Your task to perform on an android device: turn off picture-in-picture Image 0: 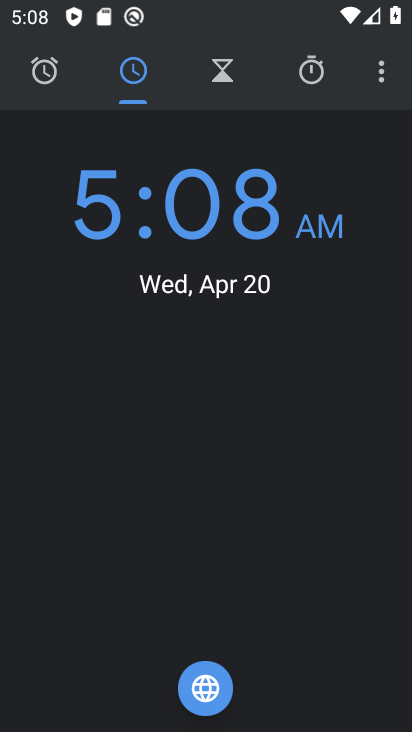
Step 0: press home button
Your task to perform on an android device: turn off picture-in-picture Image 1: 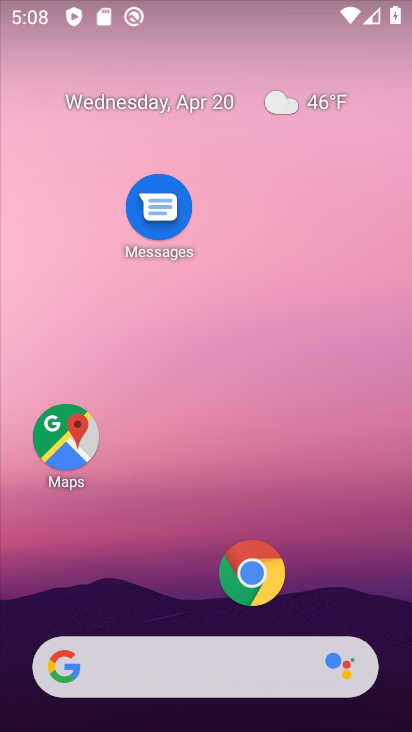
Step 1: click (232, 567)
Your task to perform on an android device: turn off picture-in-picture Image 2: 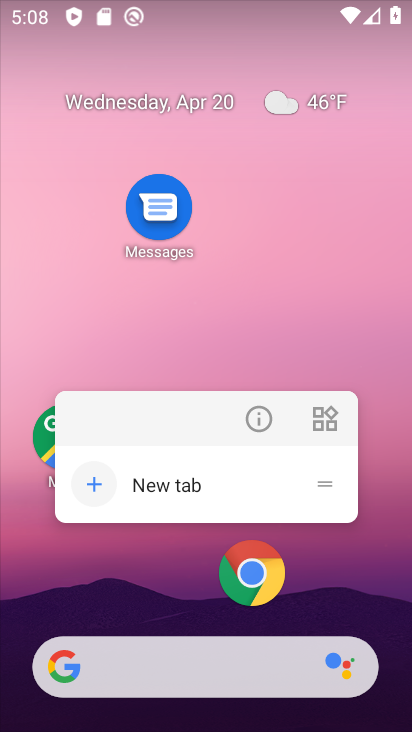
Step 2: click (264, 410)
Your task to perform on an android device: turn off picture-in-picture Image 3: 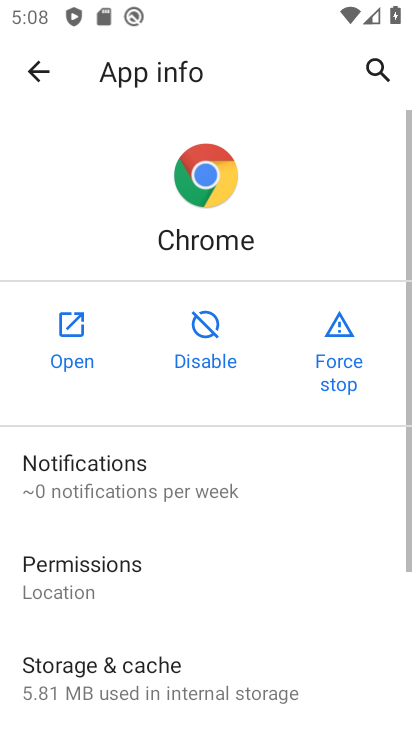
Step 3: drag from (214, 504) to (215, 262)
Your task to perform on an android device: turn off picture-in-picture Image 4: 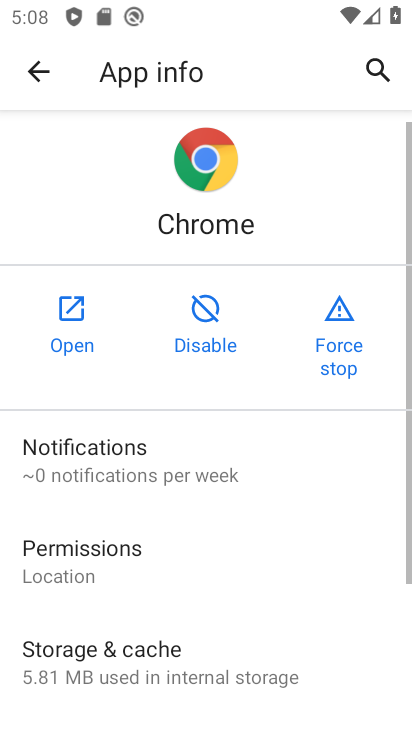
Step 4: drag from (233, 618) to (238, 276)
Your task to perform on an android device: turn off picture-in-picture Image 5: 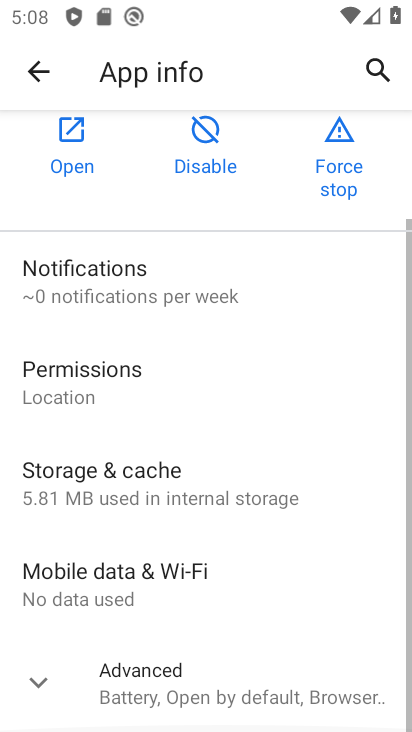
Step 5: drag from (245, 618) to (262, 324)
Your task to perform on an android device: turn off picture-in-picture Image 6: 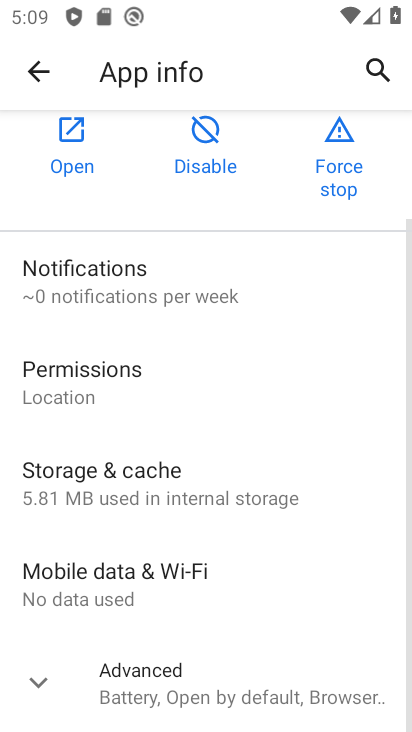
Step 6: drag from (168, 676) to (224, 462)
Your task to perform on an android device: turn off picture-in-picture Image 7: 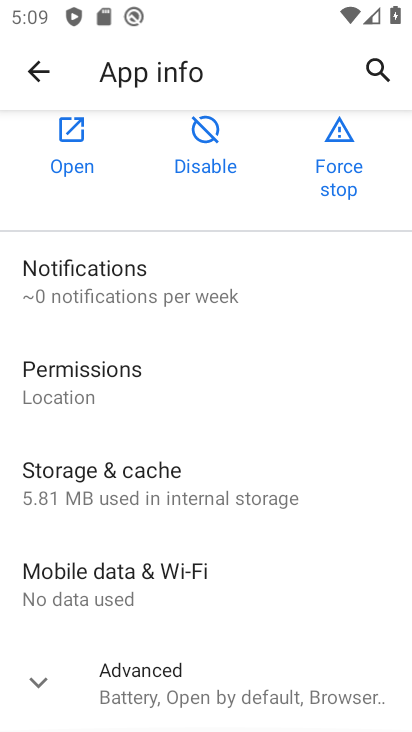
Step 7: click (151, 663)
Your task to perform on an android device: turn off picture-in-picture Image 8: 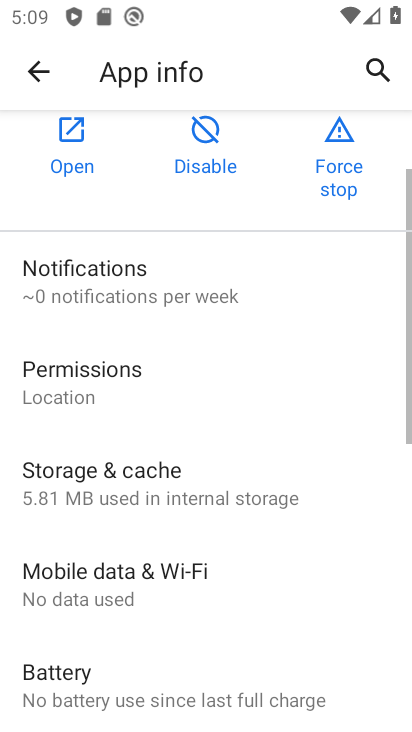
Step 8: drag from (204, 679) to (238, 371)
Your task to perform on an android device: turn off picture-in-picture Image 9: 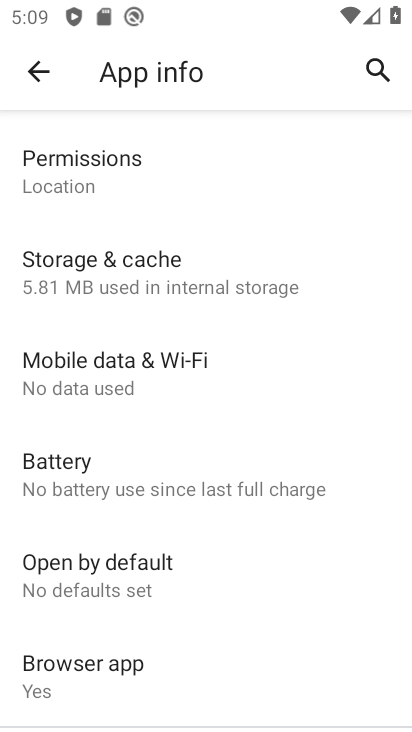
Step 9: drag from (190, 663) to (212, 375)
Your task to perform on an android device: turn off picture-in-picture Image 10: 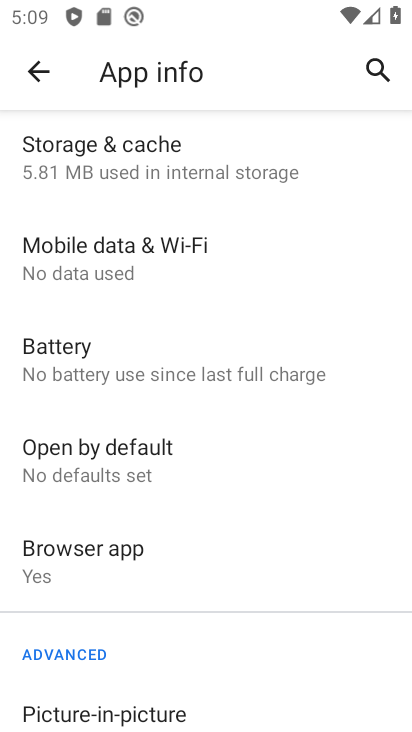
Step 10: drag from (159, 608) to (183, 460)
Your task to perform on an android device: turn off picture-in-picture Image 11: 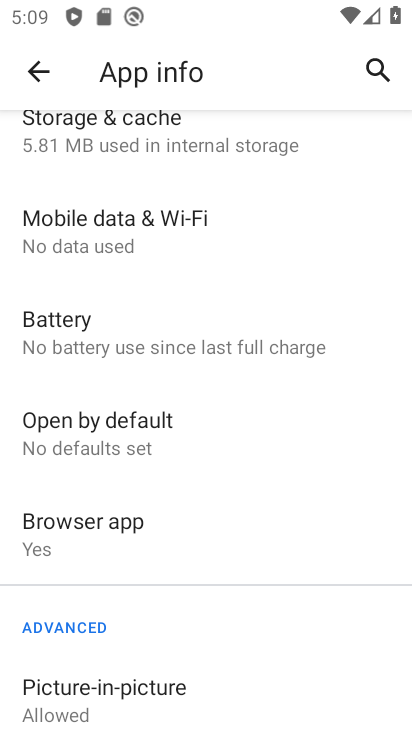
Step 11: click (149, 703)
Your task to perform on an android device: turn off picture-in-picture Image 12: 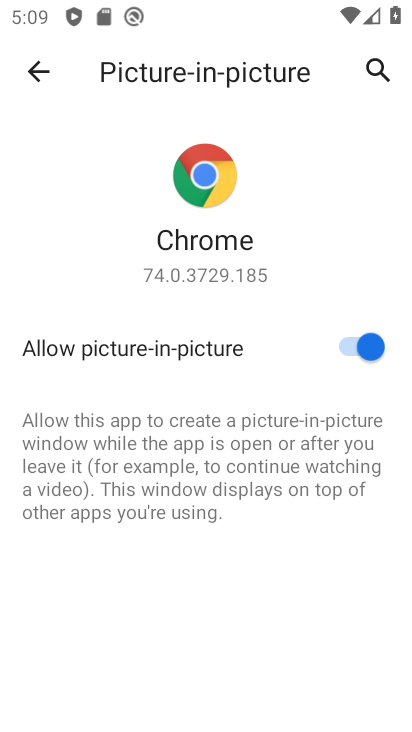
Step 12: click (353, 338)
Your task to perform on an android device: turn off picture-in-picture Image 13: 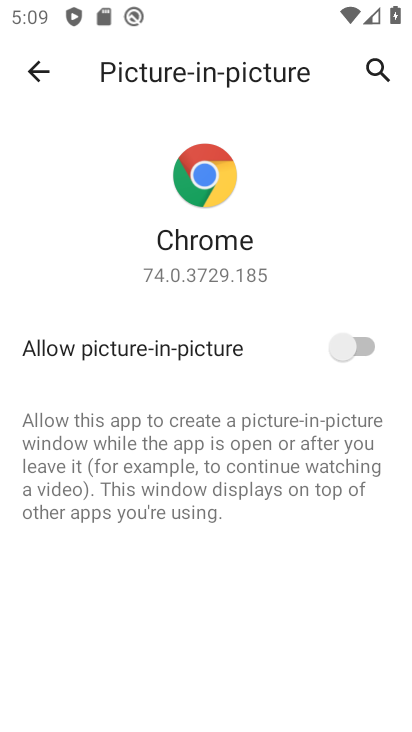
Step 13: task complete